Your task to perform on an android device: toggle sleep mode Image 0: 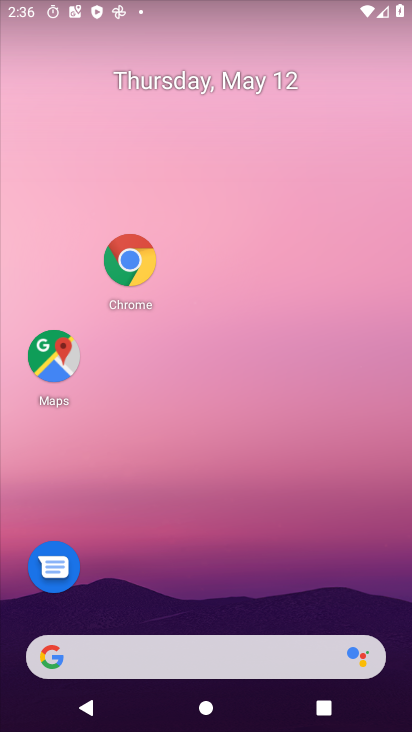
Step 0: drag from (185, 629) to (206, 316)
Your task to perform on an android device: toggle sleep mode Image 1: 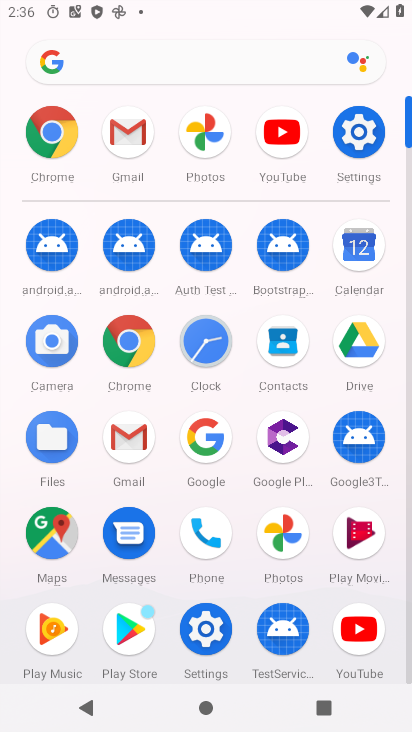
Step 1: click (366, 130)
Your task to perform on an android device: toggle sleep mode Image 2: 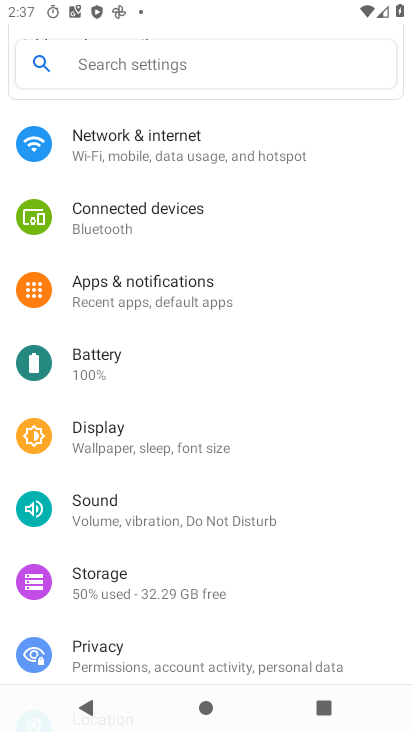
Step 2: click (177, 446)
Your task to perform on an android device: toggle sleep mode Image 3: 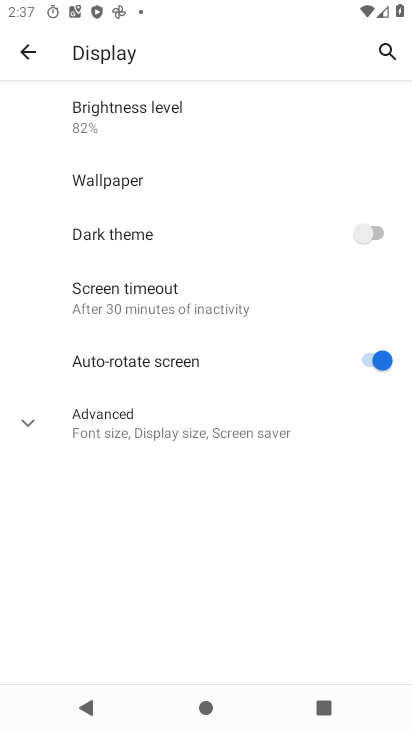
Step 3: click (371, 236)
Your task to perform on an android device: toggle sleep mode Image 4: 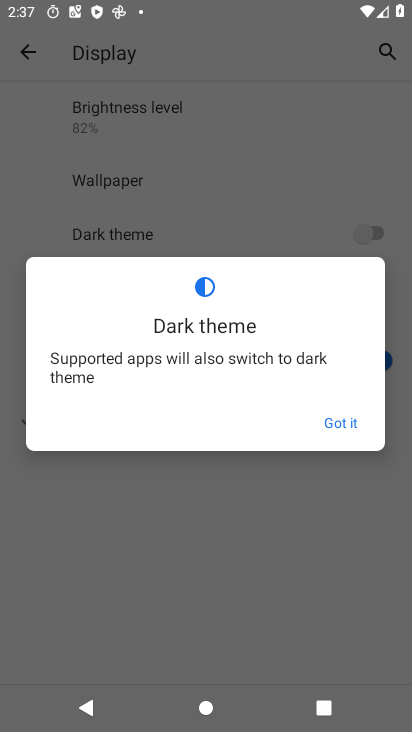
Step 4: click (331, 434)
Your task to perform on an android device: toggle sleep mode Image 5: 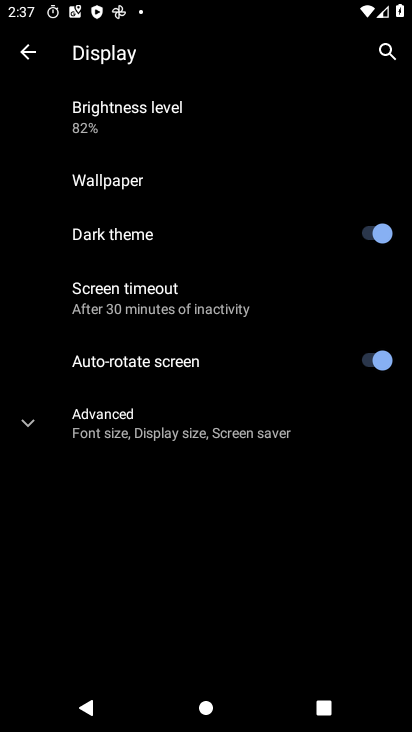
Step 5: task complete